Your task to perform on an android device: Set the phone to "Do not disturb". Image 0: 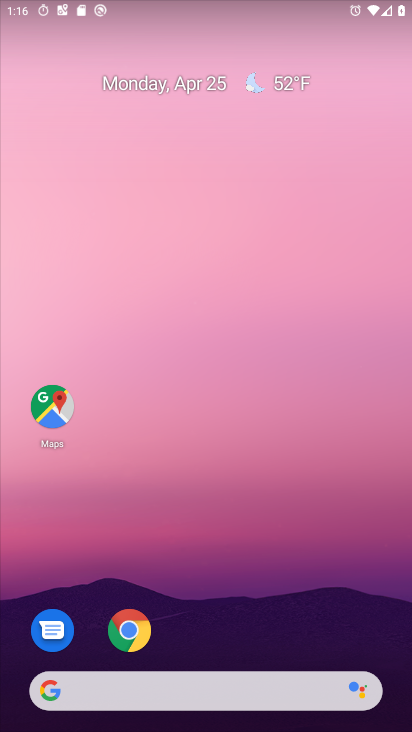
Step 0: drag from (207, 671) to (201, 94)
Your task to perform on an android device: Set the phone to "Do not disturb". Image 1: 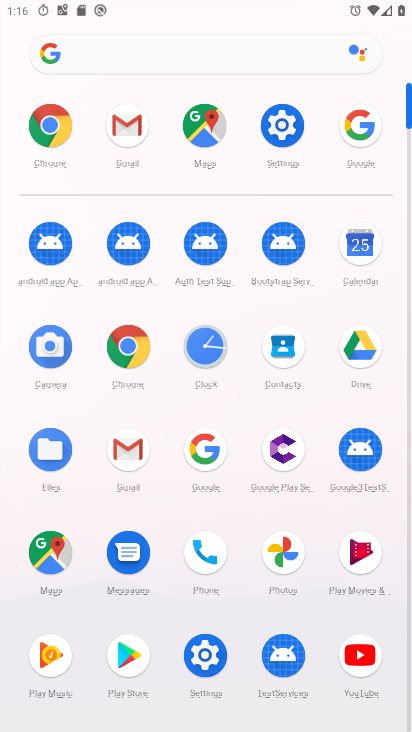
Step 1: click (191, 646)
Your task to perform on an android device: Set the phone to "Do not disturb". Image 2: 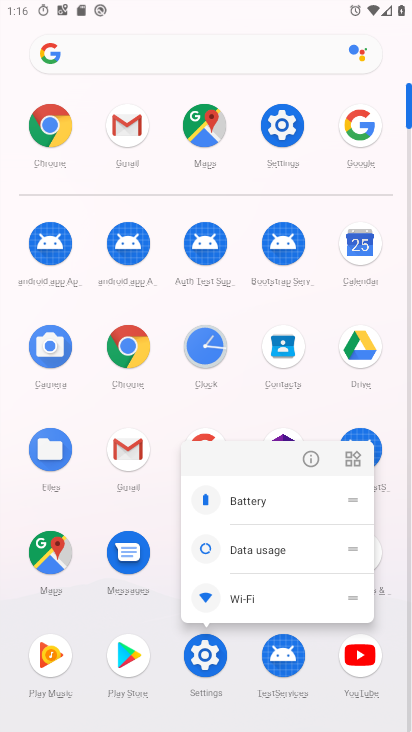
Step 2: click (298, 452)
Your task to perform on an android device: Set the phone to "Do not disturb". Image 3: 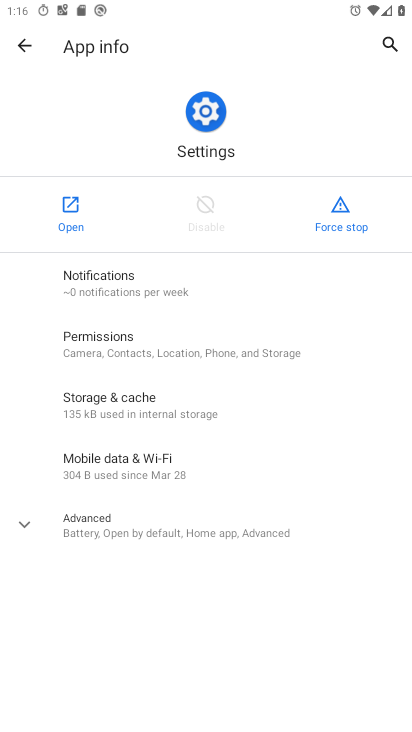
Step 3: click (75, 200)
Your task to perform on an android device: Set the phone to "Do not disturb". Image 4: 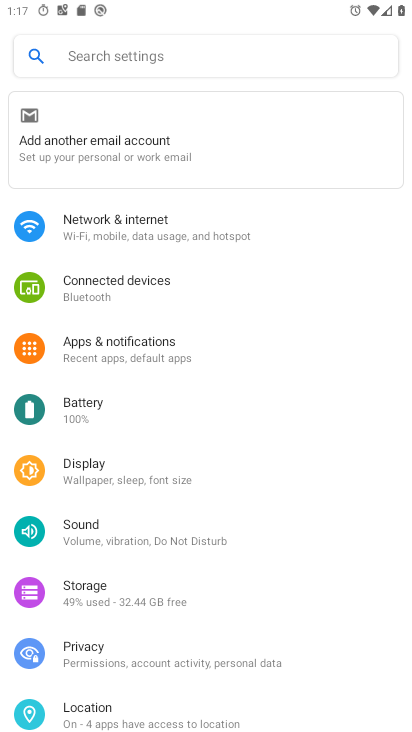
Step 4: drag from (162, 584) to (403, 138)
Your task to perform on an android device: Set the phone to "Do not disturb". Image 5: 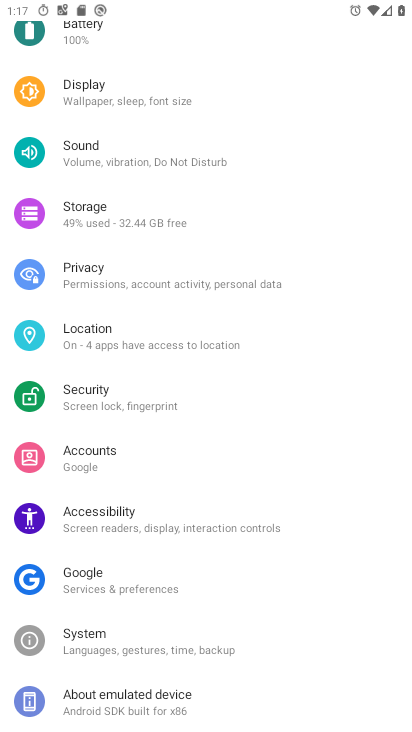
Step 5: drag from (202, 195) to (273, 694)
Your task to perform on an android device: Set the phone to "Do not disturb". Image 6: 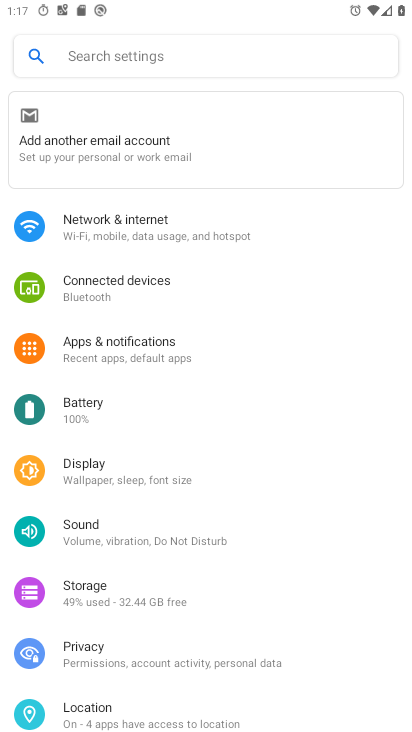
Step 6: click (128, 347)
Your task to perform on an android device: Set the phone to "Do not disturb". Image 7: 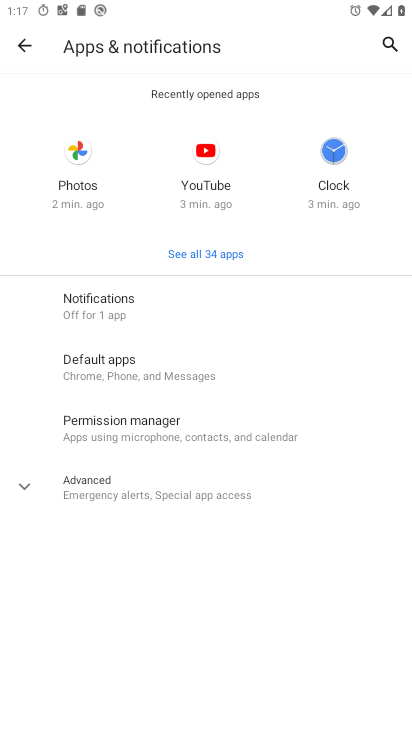
Step 7: click (154, 314)
Your task to perform on an android device: Set the phone to "Do not disturb". Image 8: 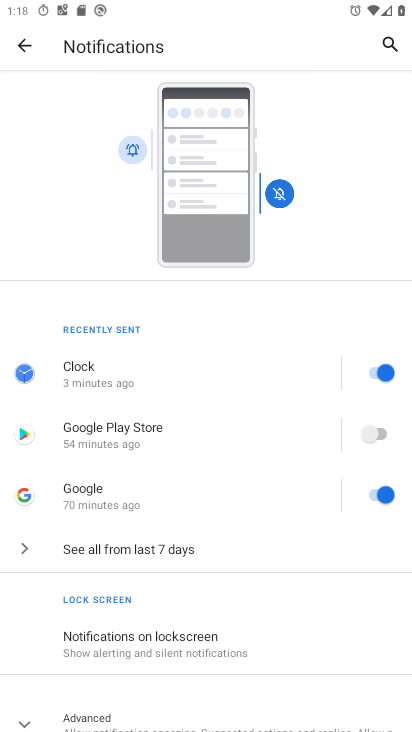
Step 8: drag from (236, 654) to (337, 85)
Your task to perform on an android device: Set the phone to "Do not disturb". Image 9: 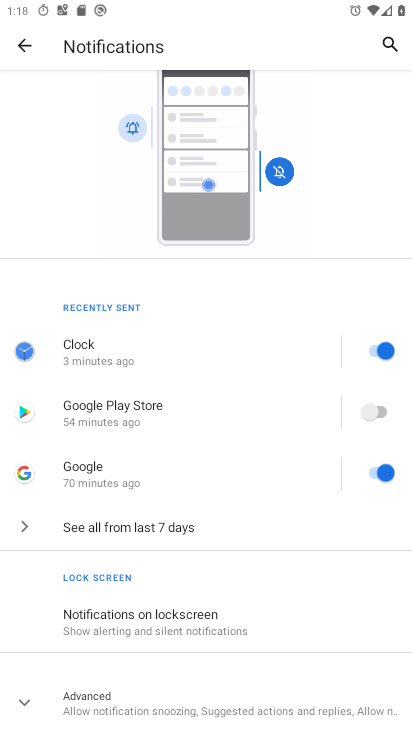
Step 9: click (120, 704)
Your task to perform on an android device: Set the phone to "Do not disturb". Image 10: 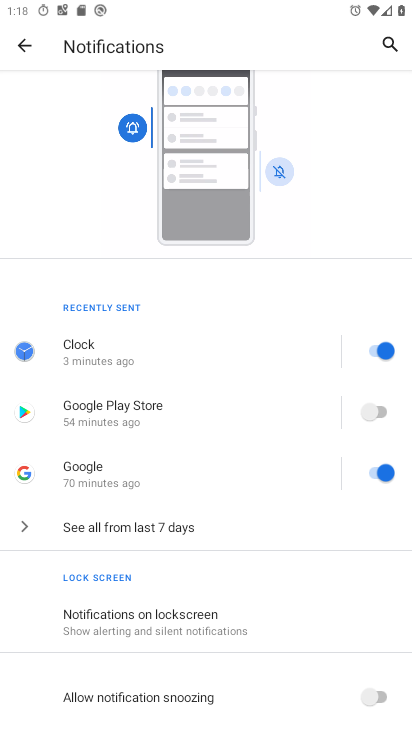
Step 10: drag from (223, 646) to (353, 221)
Your task to perform on an android device: Set the phone to "Do not disturb". Image 11: 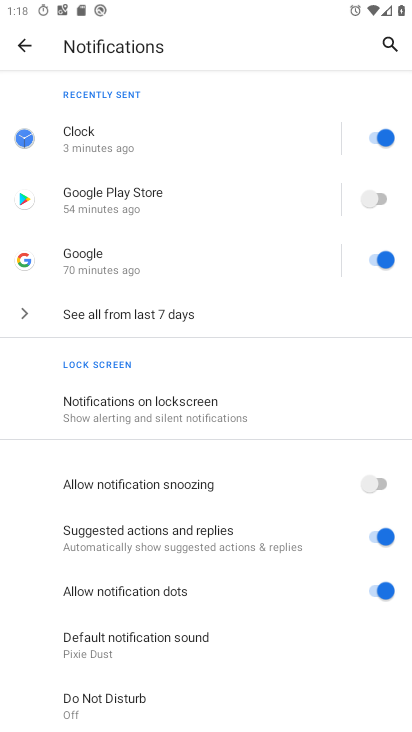
Step 11: click (138, 696)
Your task to perform on an android device: Set the phone to "Do not disturb". Image 12: 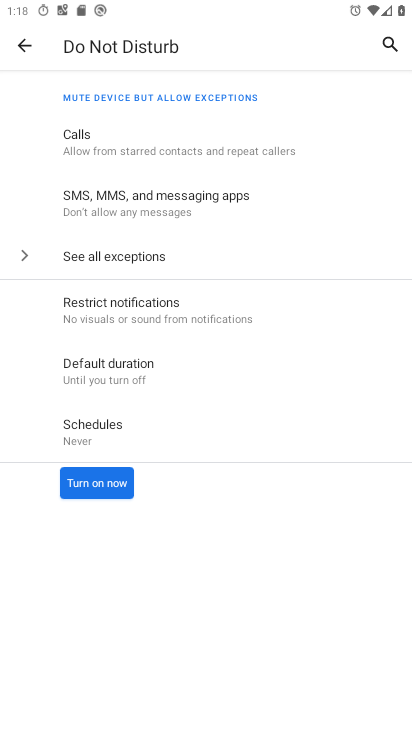
Step 12: click (105, 486)
Your task to perform on an android device: Set the phone to "Do not disturb". Image 13: 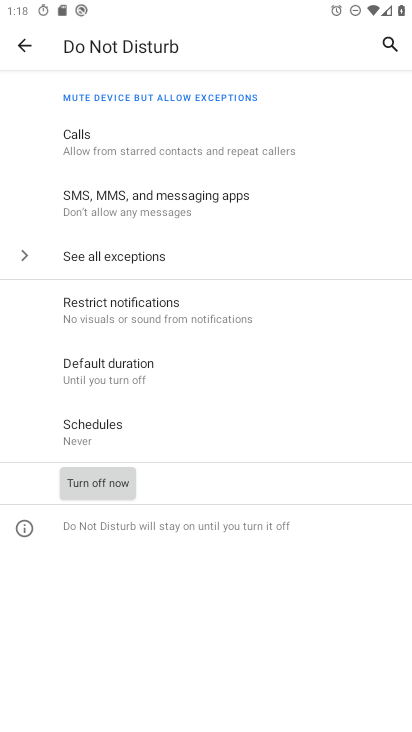
Step 13: task complete